Your task to perform on an android device: Open the calendar app, open the side menu, and click the "Day" option Image 0: 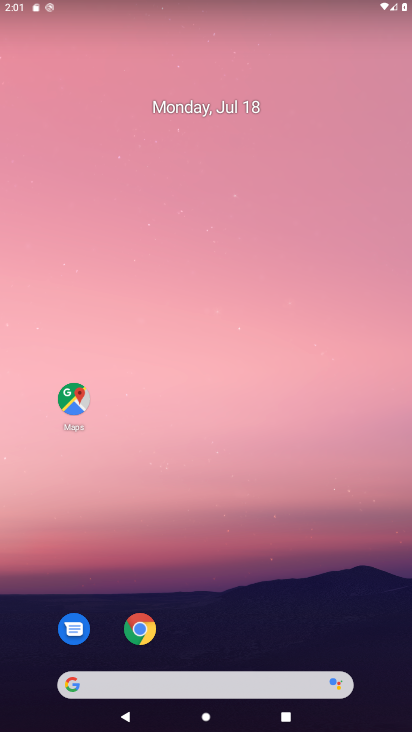
Step 0: drag from (221, 481) to (288, 99)
Your task to perform on an android device: Open the calendar app, open the side menu, and click the "Day" option Image 1: 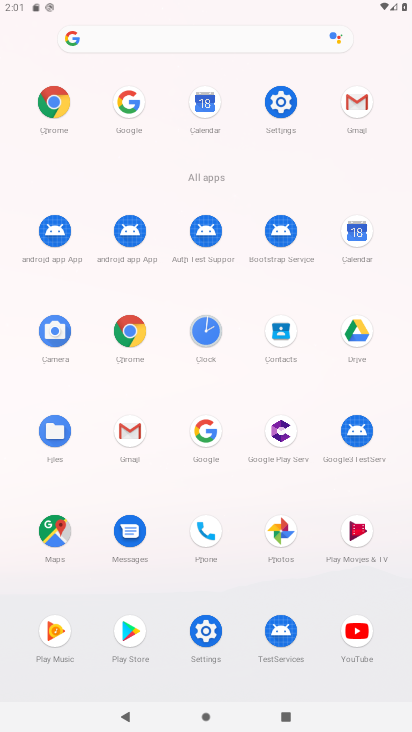
Step 1: click (346, 229)
Your task to perform on an android device: Open the calendar app, open the side menu, and click the "Day" option Image 2: 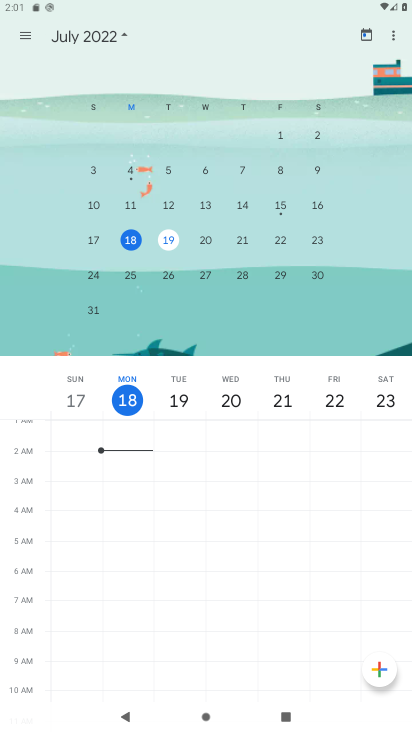
Step 2: click (23, 40)
Your task to perform on an android device: Open the calendar app, open the side menu, and click the "Day" option Image 3: 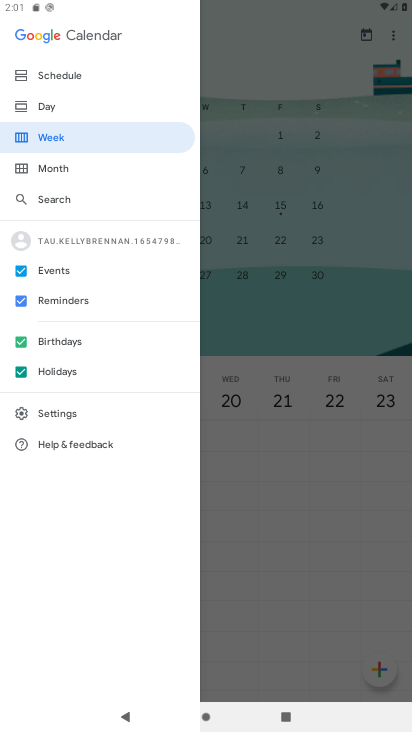
Step 3: click (52, 115)
Your task to perform on an android device: Open the calendar app, open the side menu, and click the "Day" option Image 4: 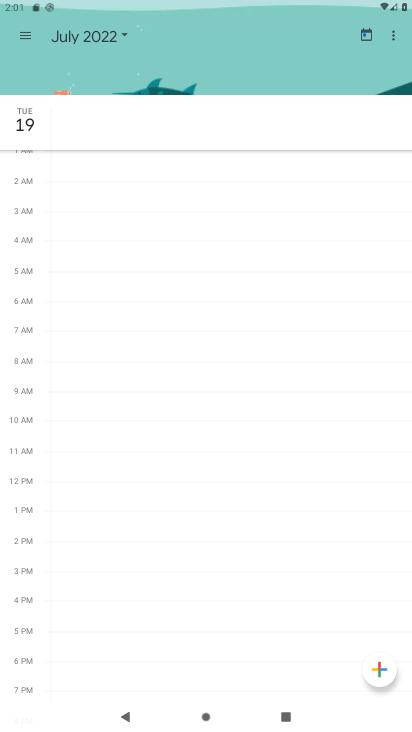
Step 4: task complete